Your task to perform on an android device: toggle show notifications on the lock screen Image 0: 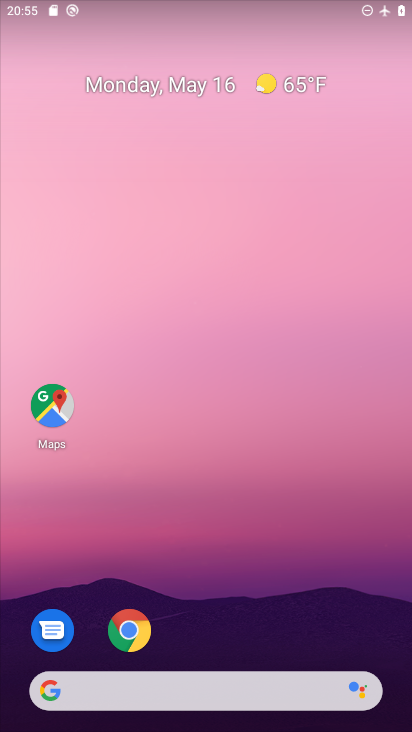
Step 0: drag from (211, 632) to (214, 213)
Your task to perform on an android device: toggle show notifications on the lock screen Image 1: 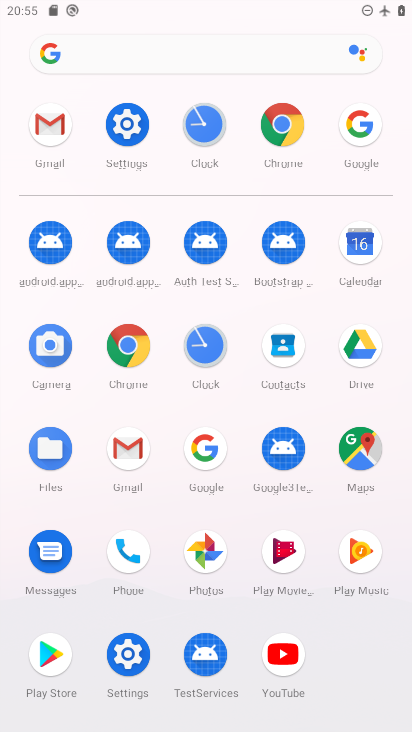
Step 1: click (145, 139)
Your task to perform on an android device: toggle show notifications on the lock screen Image 2: 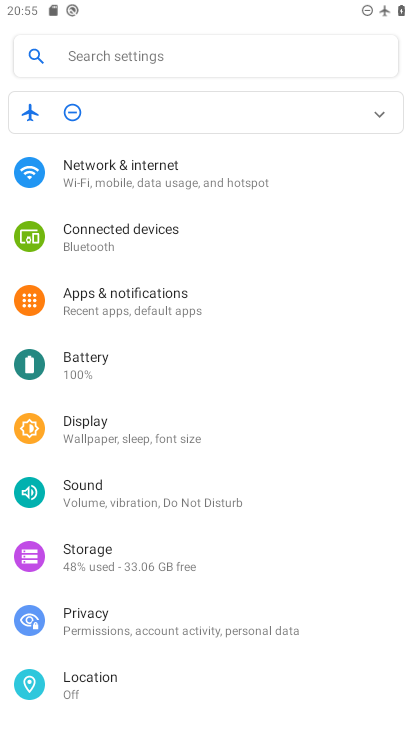
Step 2: click (146, 313)
Your task to perform on an android device: toggle show notifications on the lock screen Image 3: 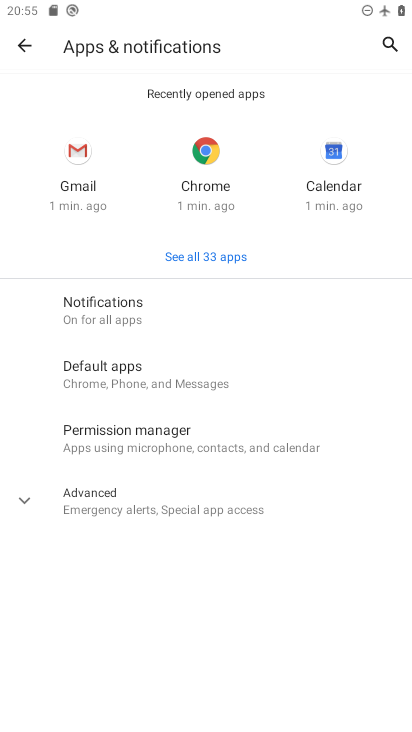
Step 3: click (147, 320)
Your task to perform on an android device: toggle show notifications on the lock screen Image 4: 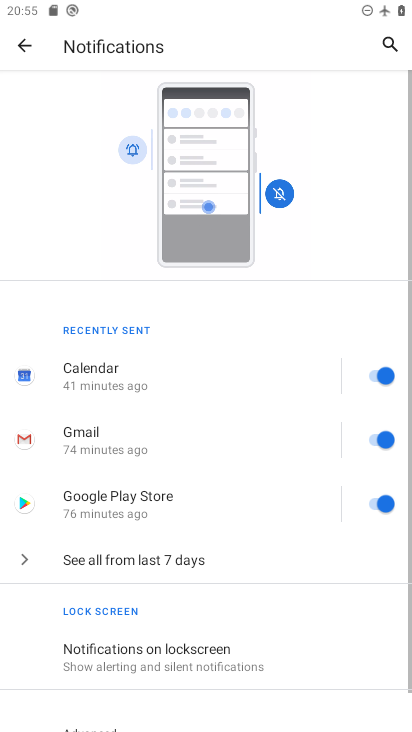
Step 4: drag from (220, 581) to (198, 374)
Your task to perform on an android device: toggle show notifications on the lock screen Image 5: 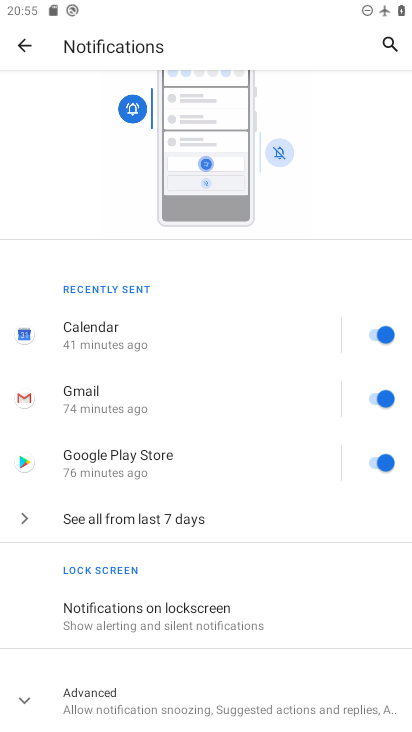
Step 5: click (173, 612)
Your task to perform on an android device: toggle show notifications on the lock screen Image 6: 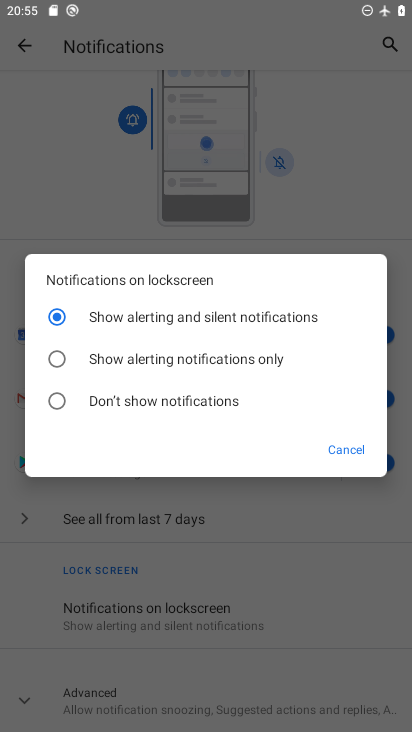
Step 6: click (139, 403)
Your task to perform on an android device: toggle show notifications on the lock screen Image 7: 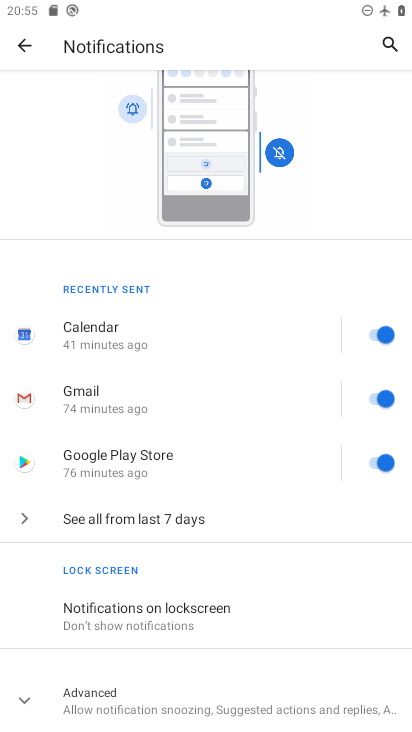
Step 7: task complete